Your task to perform on an android device: View the shopping cart on amazon. Add "corsair k70" to the cart on amazon Image 0: 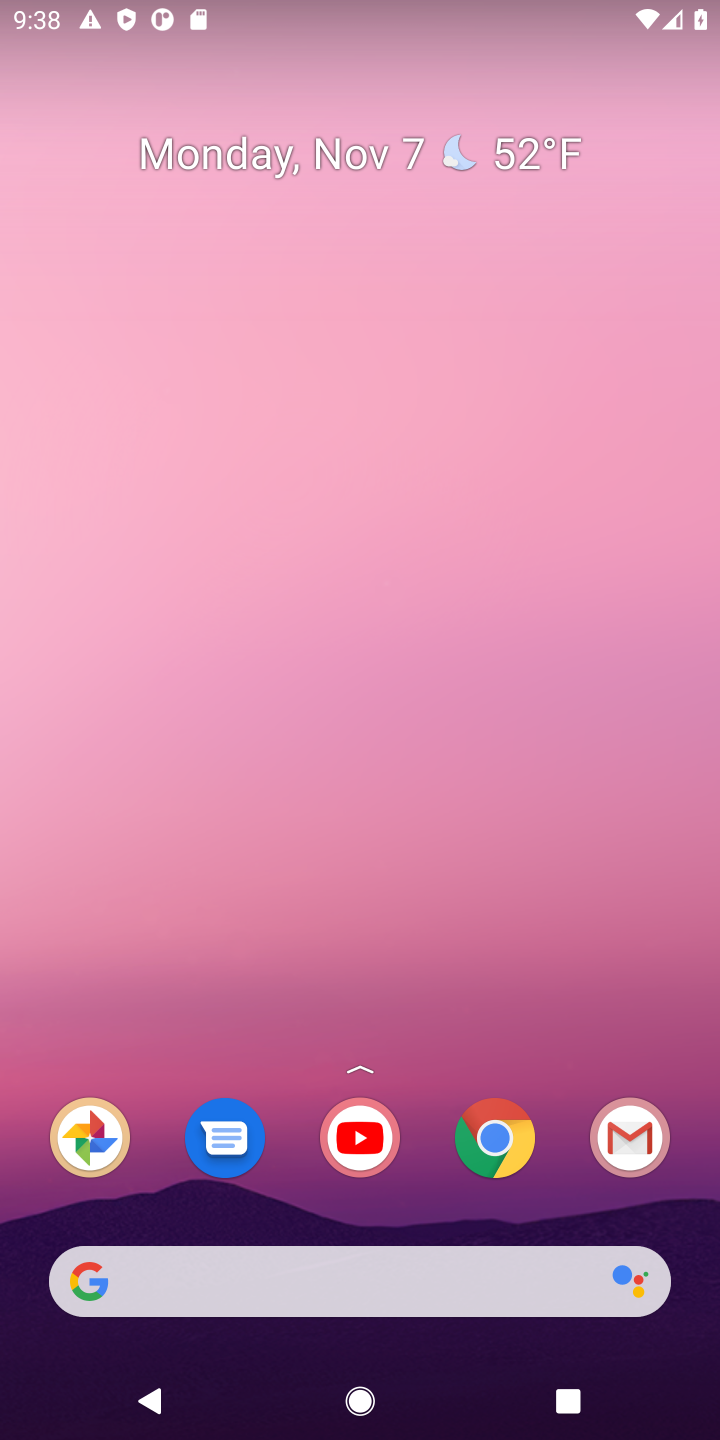
Step 0: drag from (416, 980) to (422, 249)
Your task to perform on an android device: View the shopping cart on amazon. Add "corsair k70" to the cart on amazon Image 1: 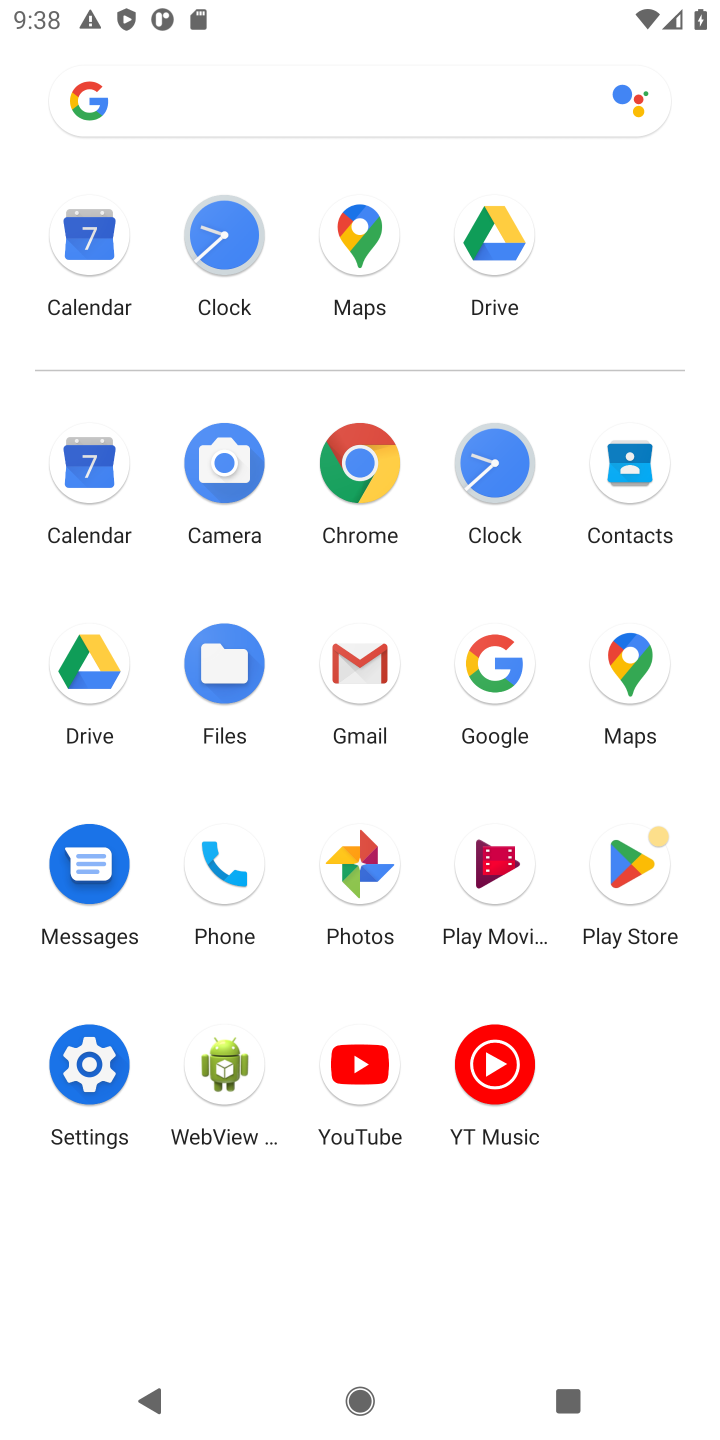
Step 1: click (354, 469)
Your task to perform on an android device: View the shopping cart on amazon. Add "corsair k70" to the cart on amazon Image 2: 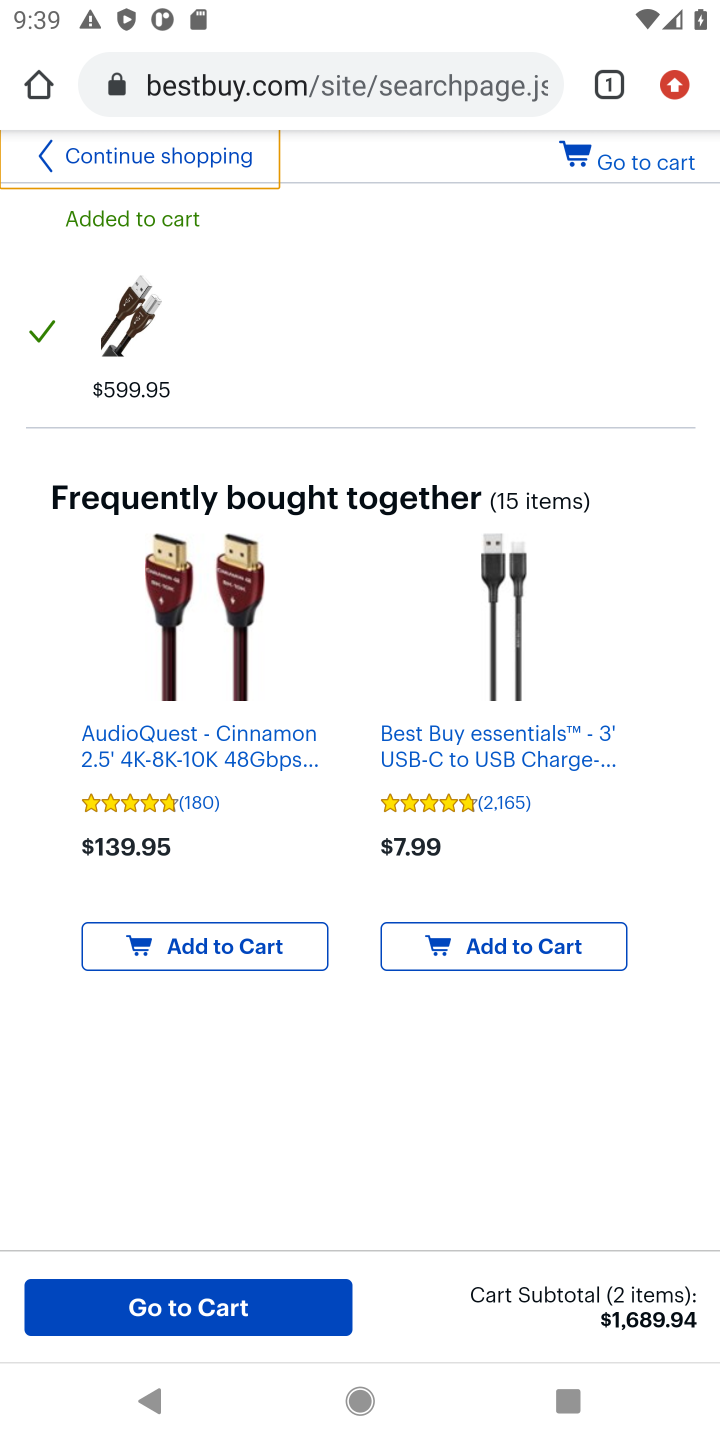
Step 2: click (426, 86)
Your task to perform on an android device: View the shopping cart on amazon. Add "corsair k70" to the cart on amazon Image 3: 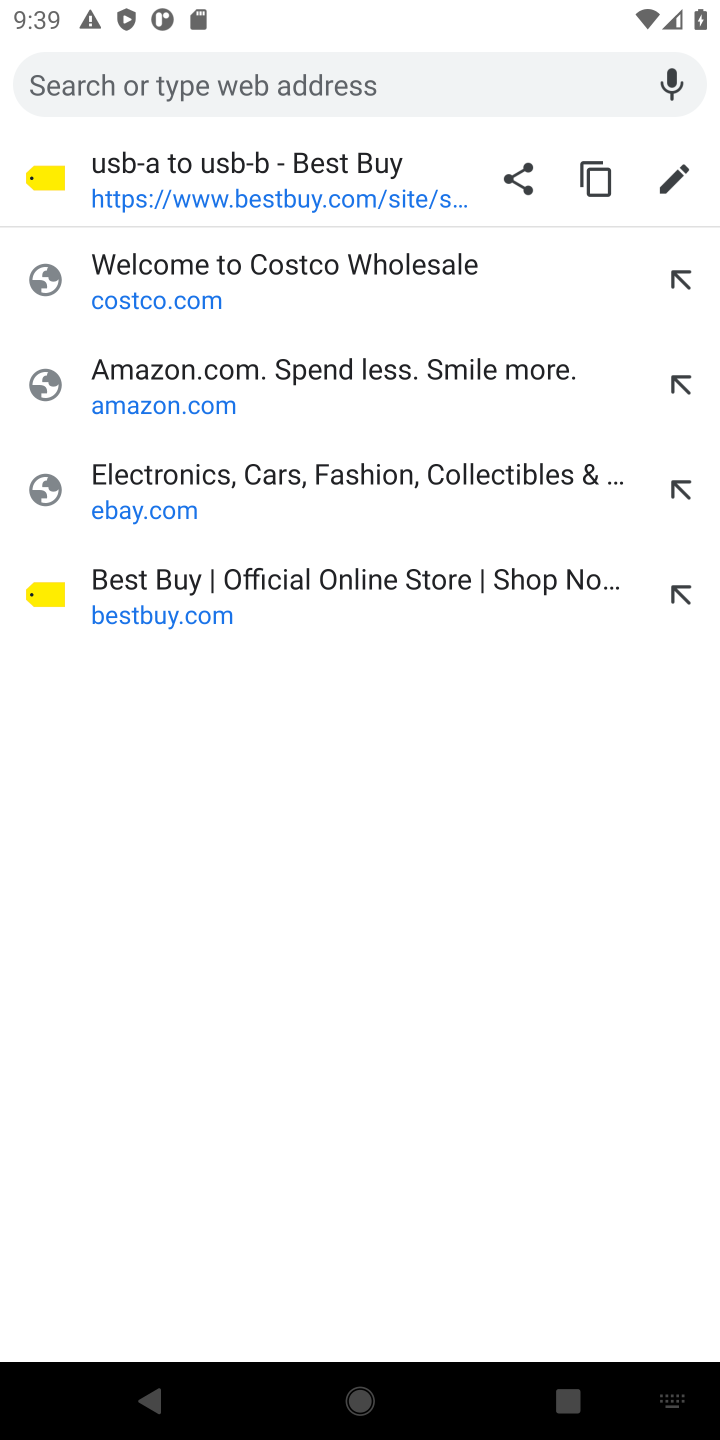
Step 3: type "amazon.com"
Your task to perform on an android device: View the shopping cart on amazon. Add "corsair k70" to the cart on amazon Image 4: 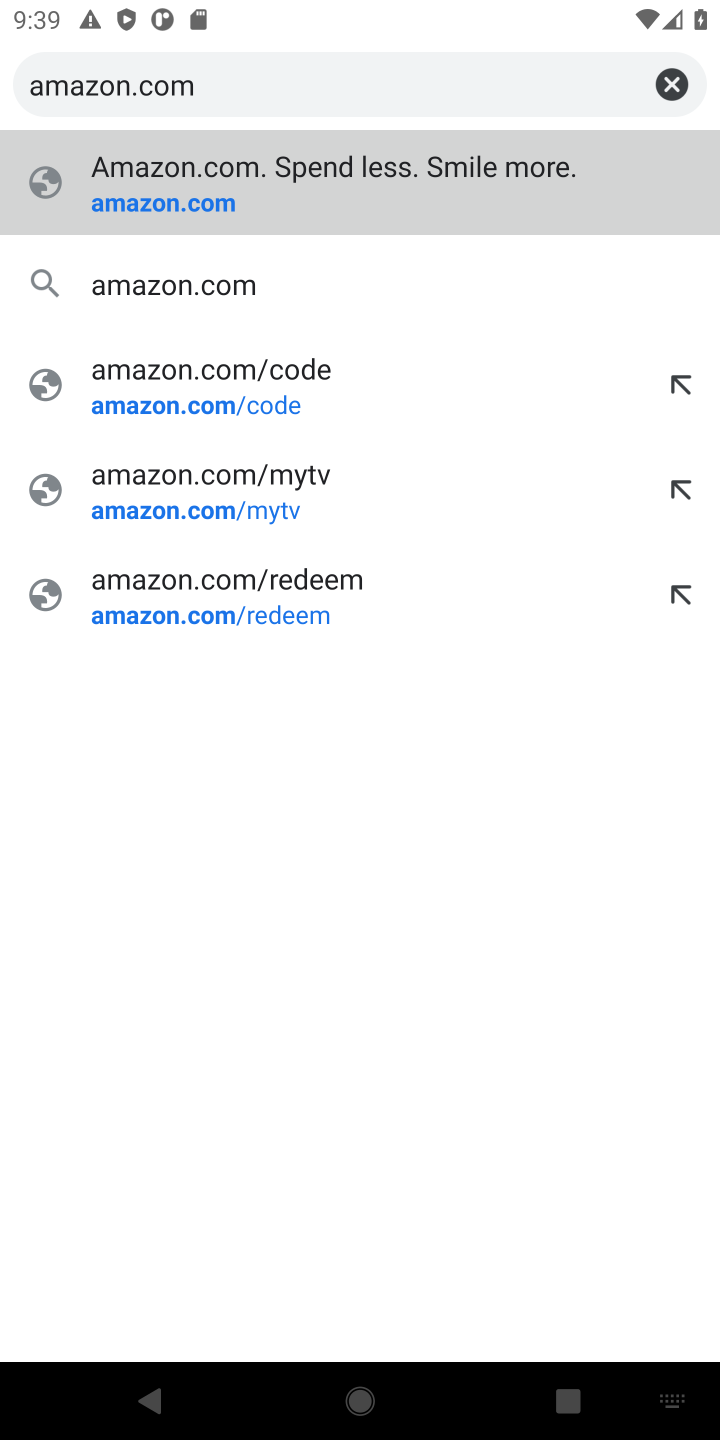
Step 4: press enter
Your task to perform on an android device: View the shopping cart on amazon. Add "corsair k70" to the cart on amazon Image 5: 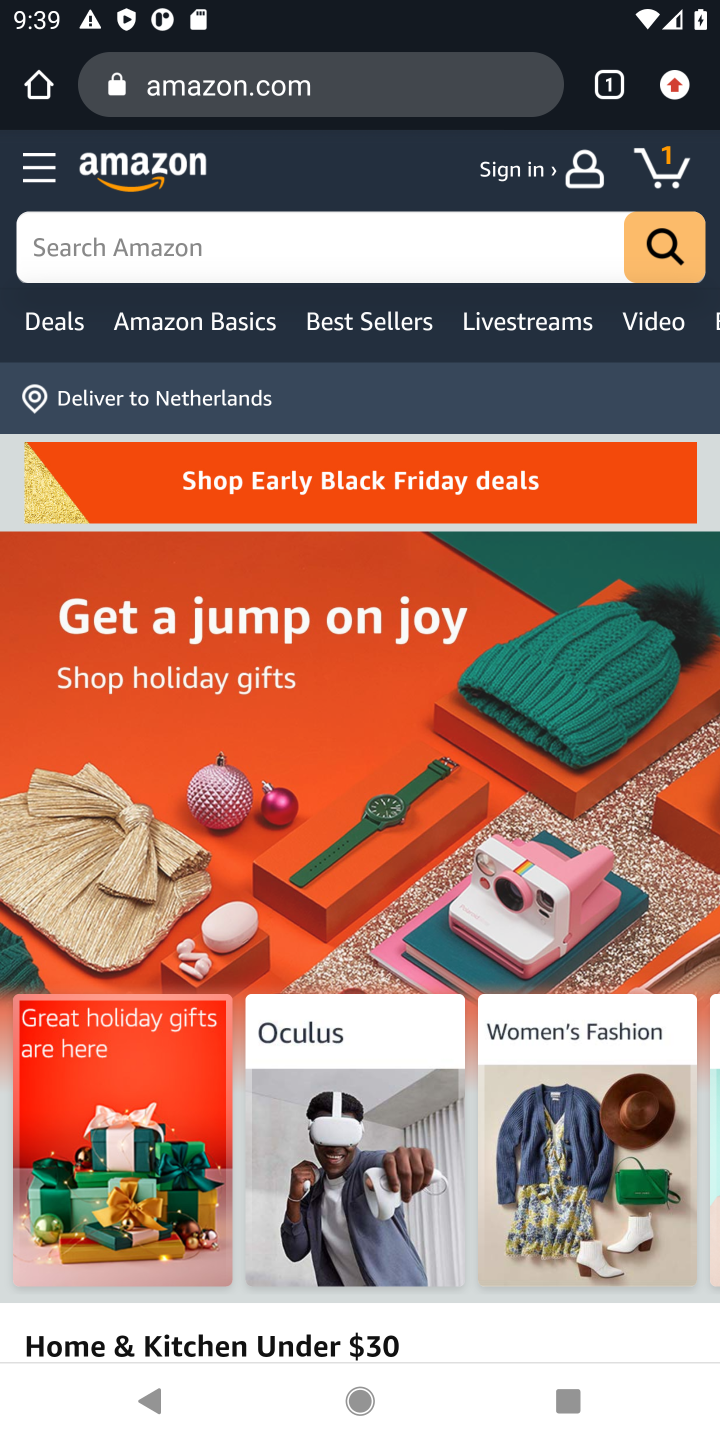
Step 5: click (652, 159)
Your task to perform on an android device: View the shopping cart on amazon. Add "corsair k70" to the cart on amazon Image 6: 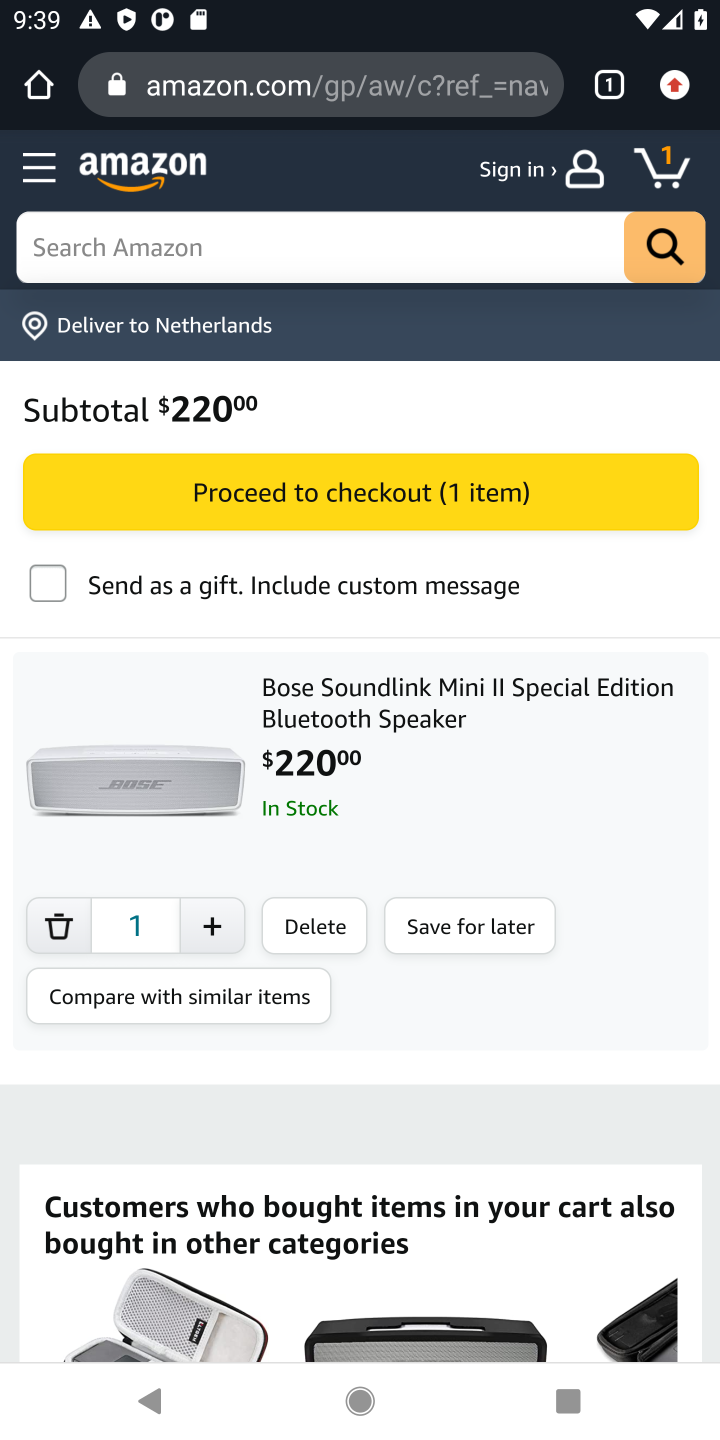
Step 6: click (341, 276)
Your task to perform on an android device: View the shopping cart on amazon. Add "corsair k70" to the cart on amazon Image 7: 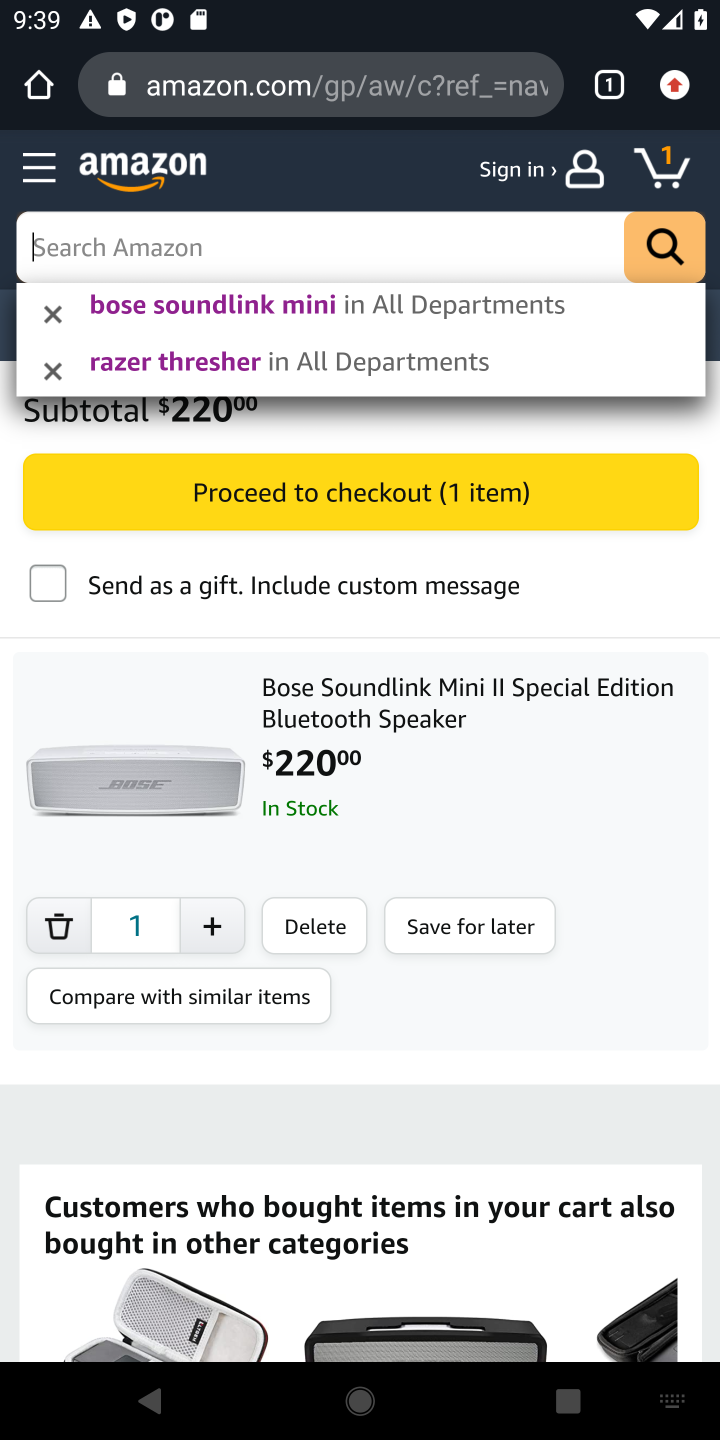
Step 7: type "corsair k70"
Your task to perform on an android device: View the shopping cart on amazon. Add "corsair k70" to the cart on amazon Image 8: 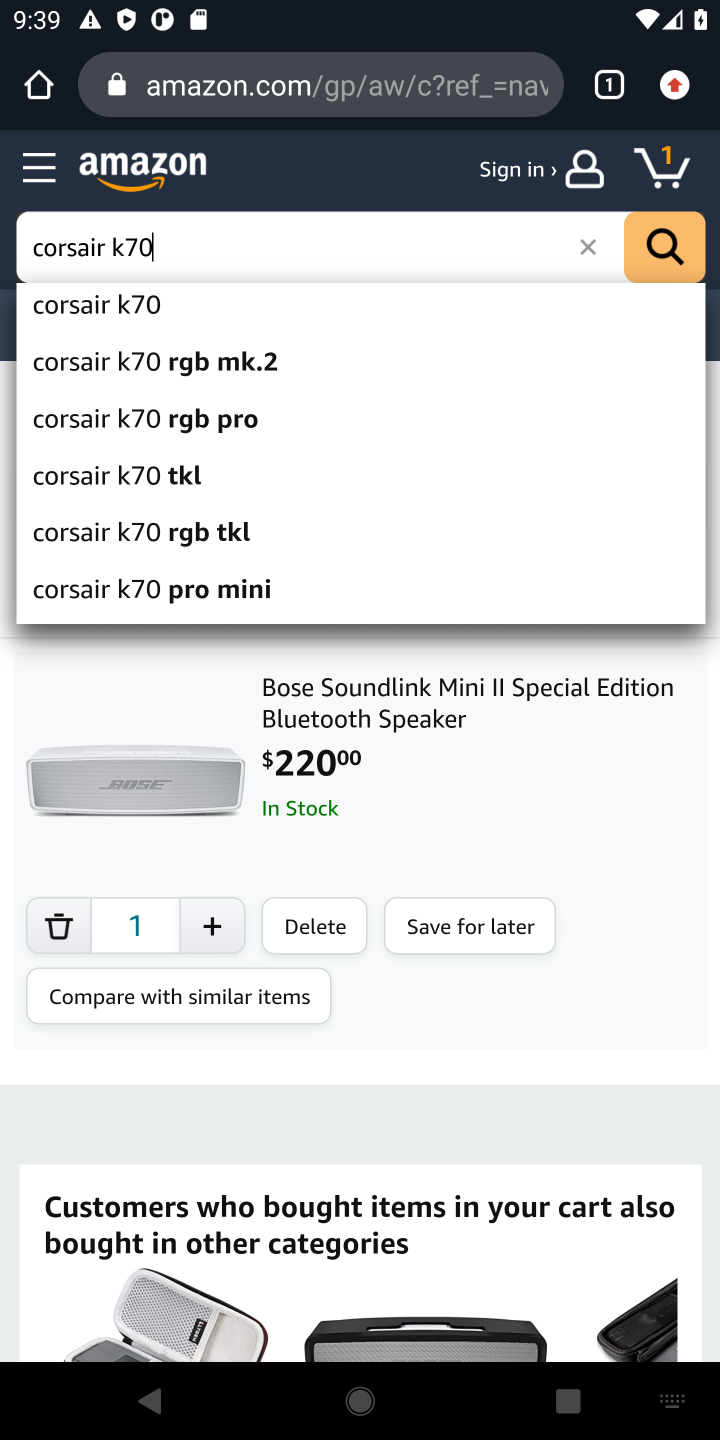
Step 8: press enter
Your task to perform on an android device: View the shopping cart on amazon. Add "corsair k70" to the cart on amazon Image 9: 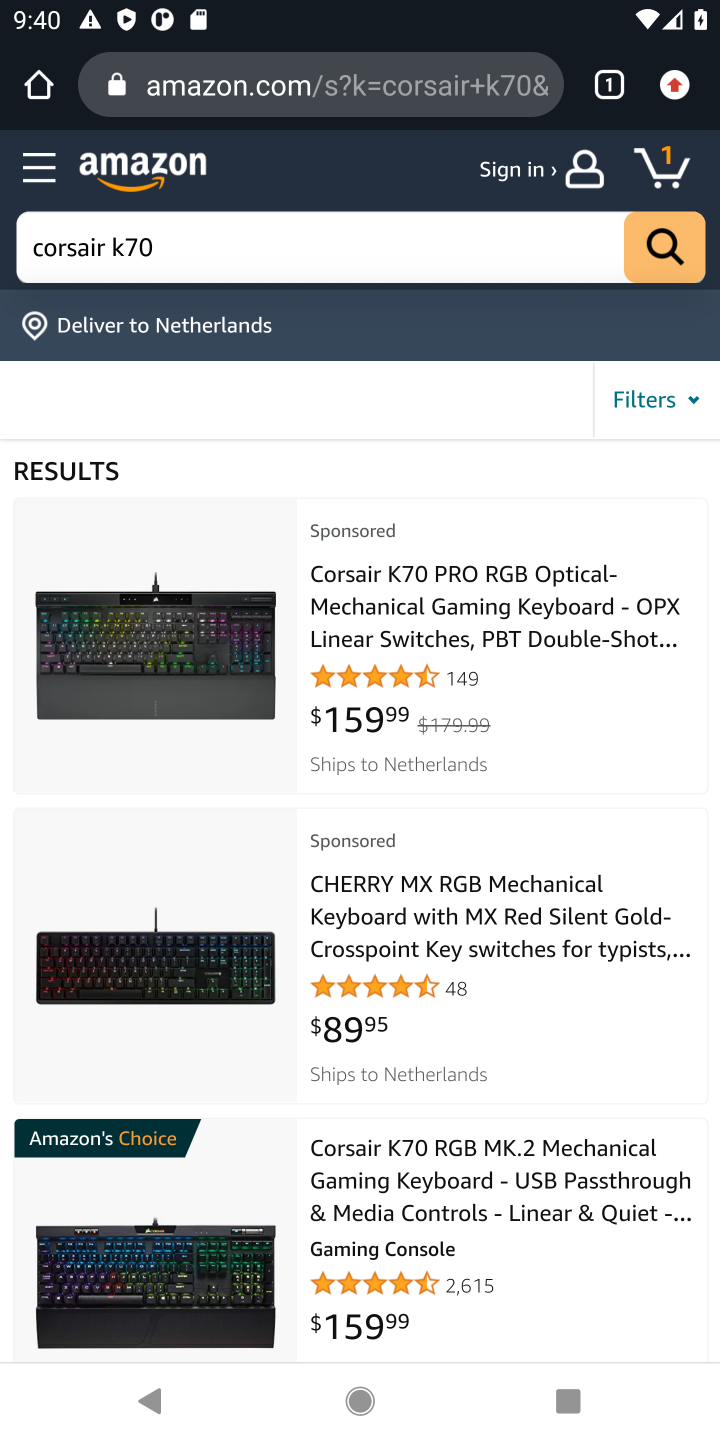
Step 9: click (476, 1195)
Your task to perform on an android device: View the shopping cart on amazon. Add "corsair k70" to the cart on amazon Image 10: 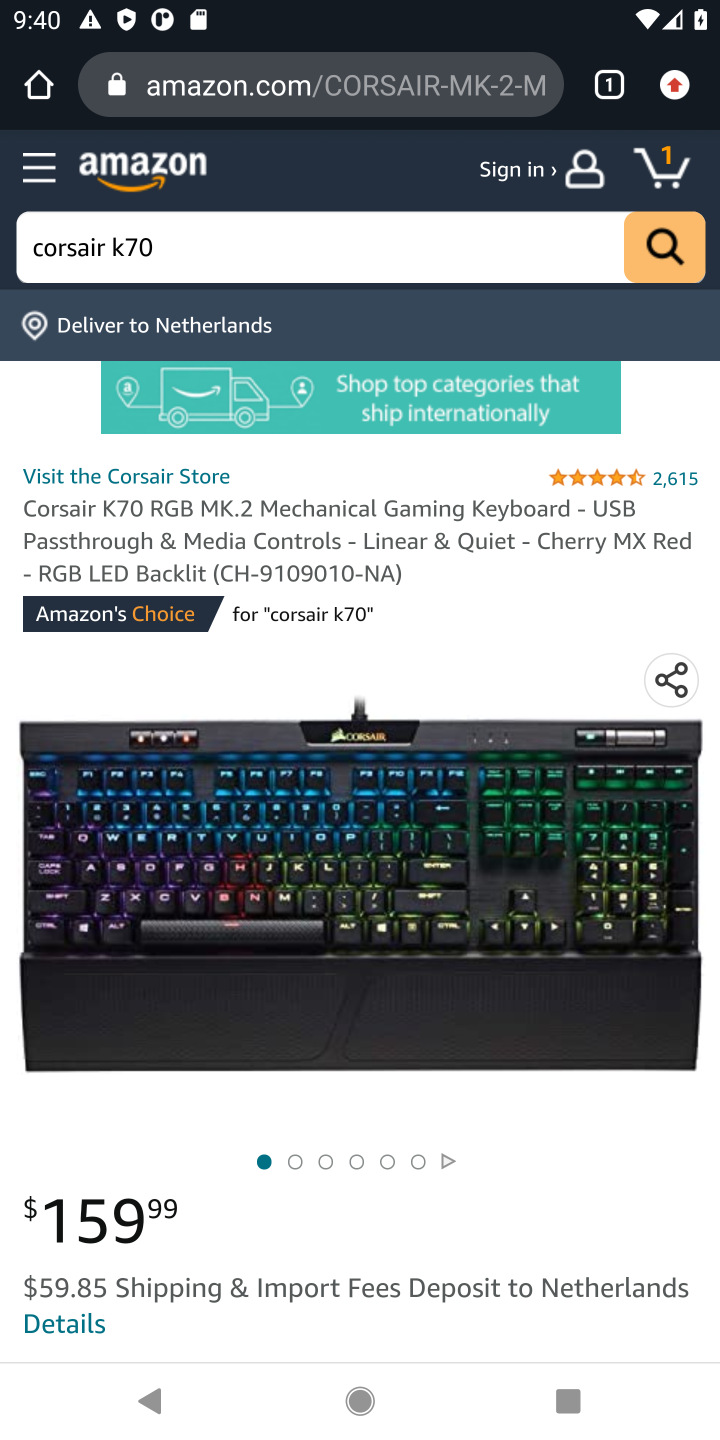
Step 10: drag from (443, 1071) to (448, 401)
Your task to perform on an android device: View the shopping cart on amazon. Add "corsair k70" to the cart on amazon Image 11: 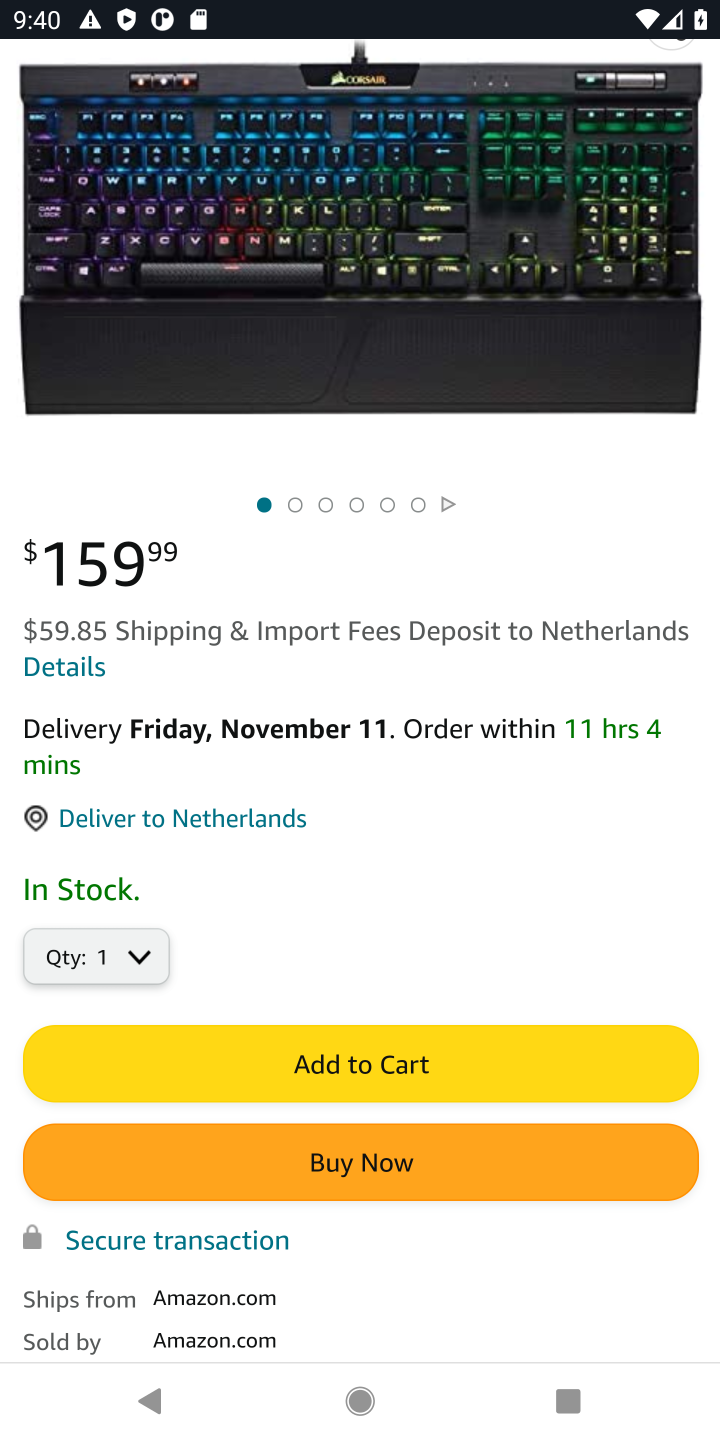
Step 11: click (418, 1051)
Your task to perform on an android device: View the shopping cart on amazon. Add "corsair k70" to the cart on amazon Image 12: 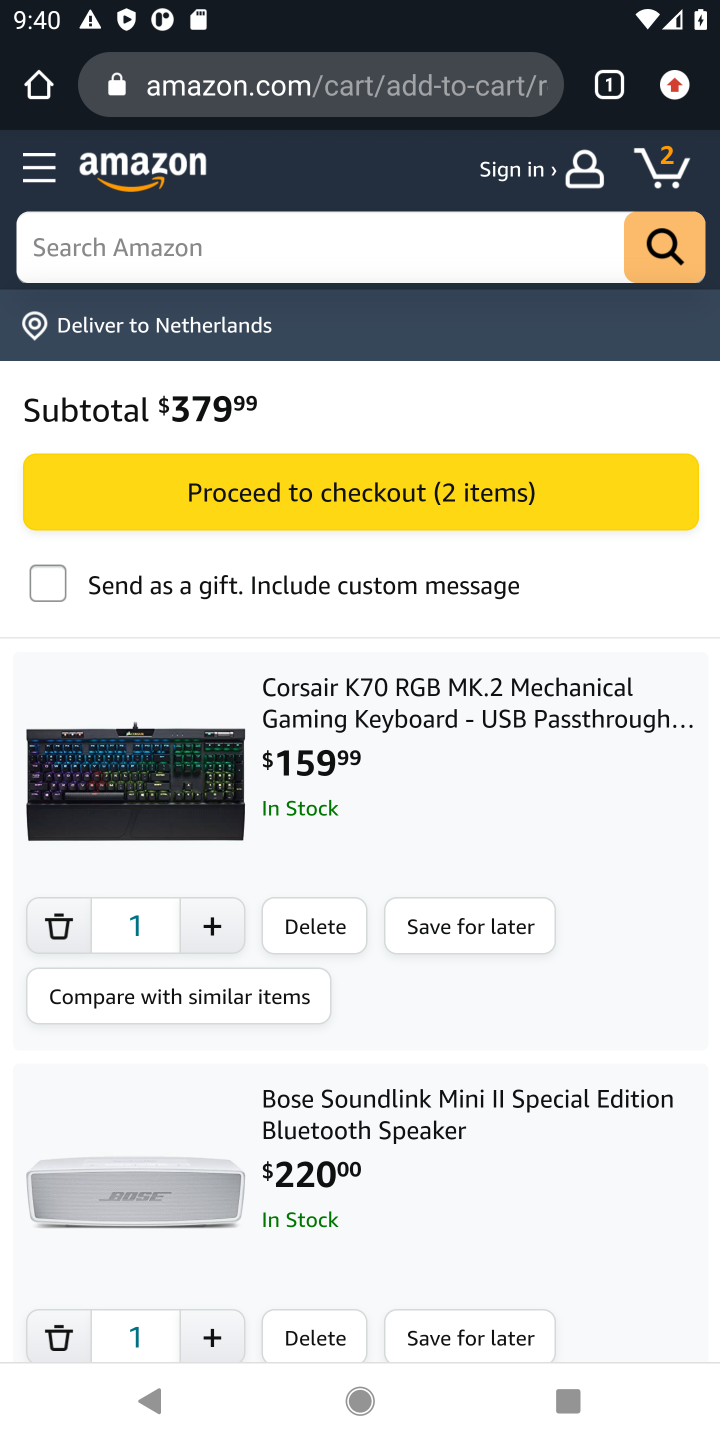
Step 12: task complete